Your task to perform on an android device: turn notification dots off Image 0: 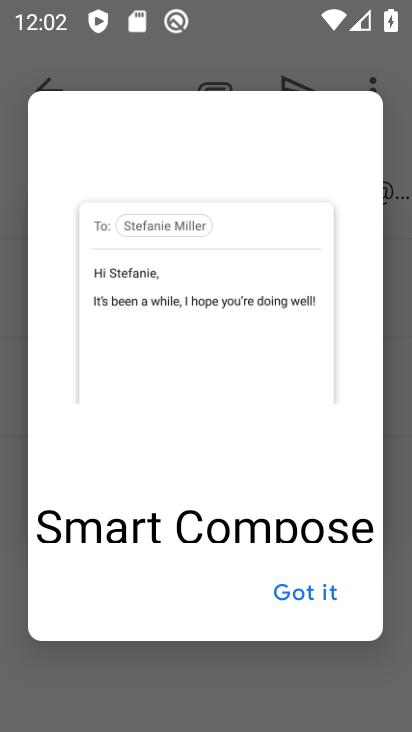
Step 0: press home button
Your task to perform on an android device: turn notification dots off Image 1: 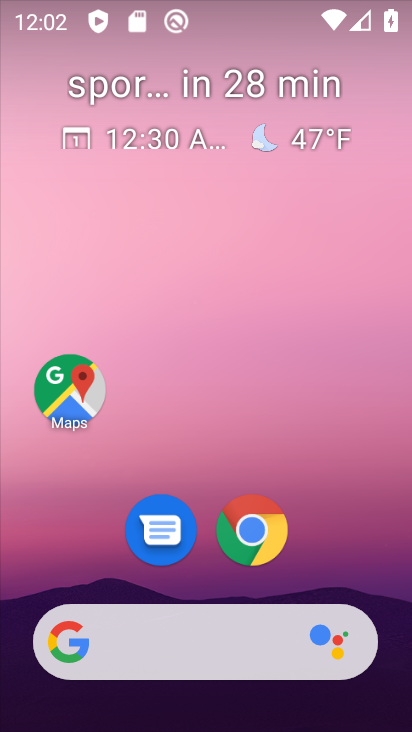
Step 1: drag from (349, 567) to (364, 59)
Your task to perform on an android device: turn notification dots off Image 2: 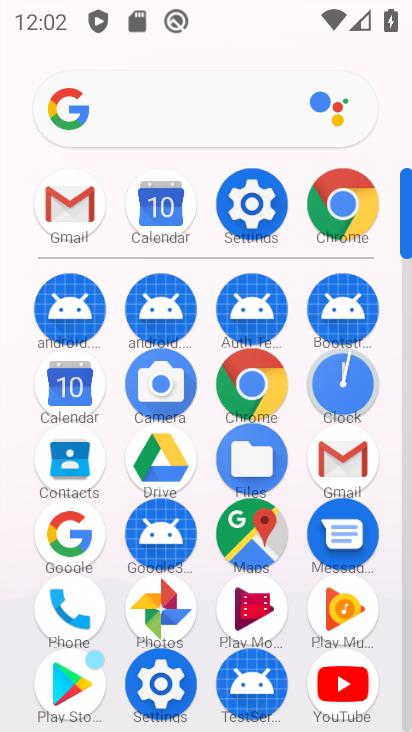
Step 2: click (246, 194)
Your task to perform on an android device: turn notification dots off Image 3: 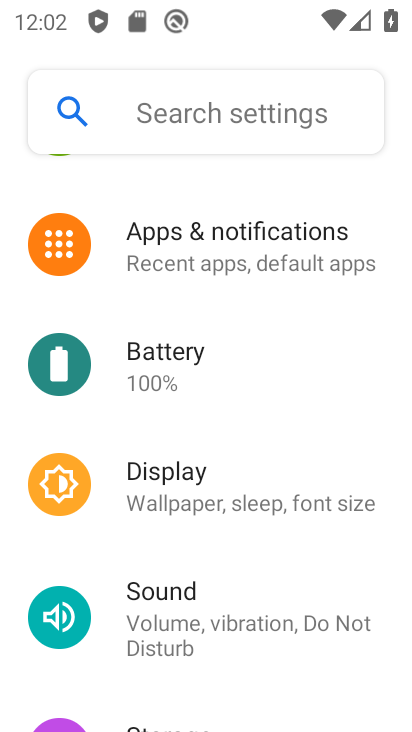
Step 3: click (275, 232)
Your task to perform on an android device: turn notification dots off Image 4: 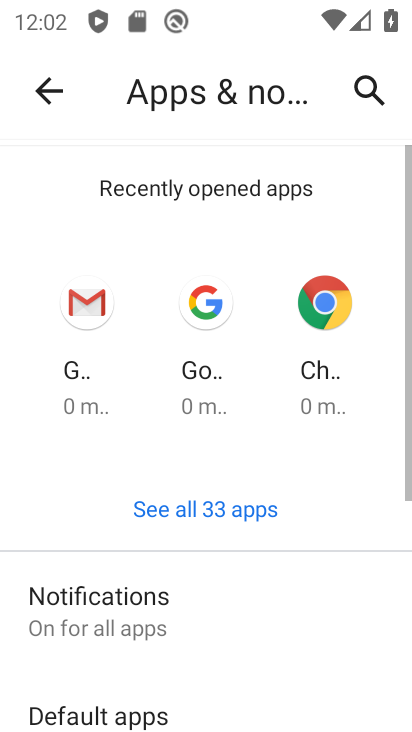
Step 4: click (161, 615)
Your task to perform on an android device: turn notification dots off Image 5: 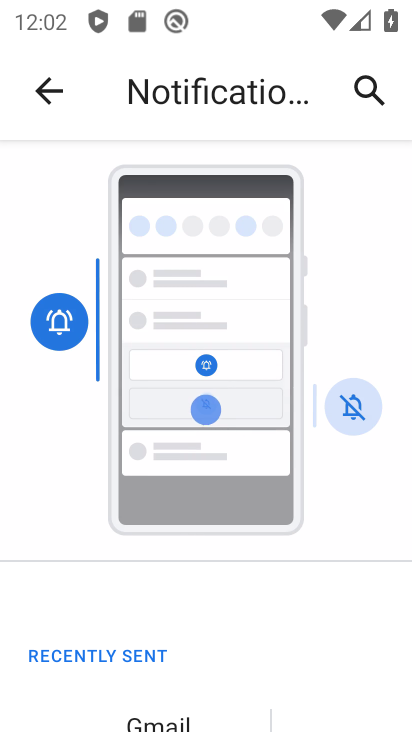
Step 5: drag from (136, 676) to (237, 333)
Your task to perform on an android device: turn notification dots off Image 6: 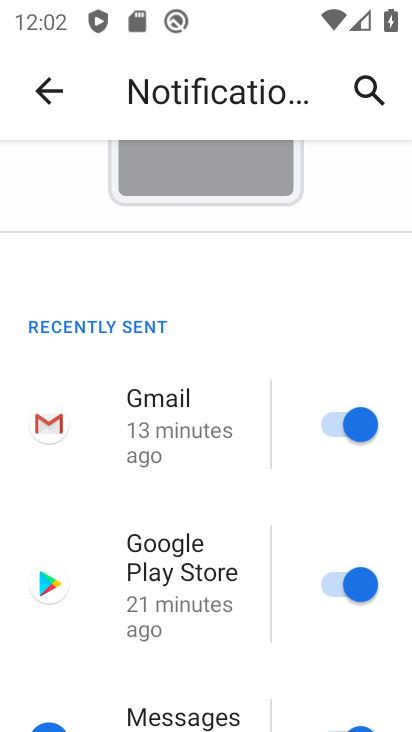
Step 6: drag from (157, 678) to (176, 357)
Your task to perform on an android device: turn notification dots off Image 7: 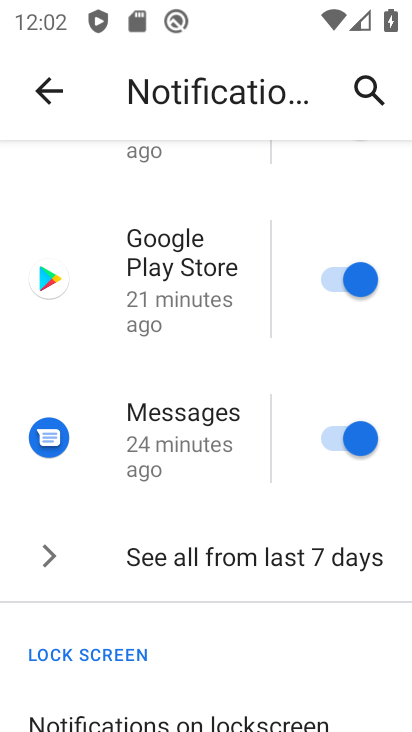
Step 7: drag from (163, 658) to (175, 267)
Your task to perform on an android device: turn notification dots off Image 8: 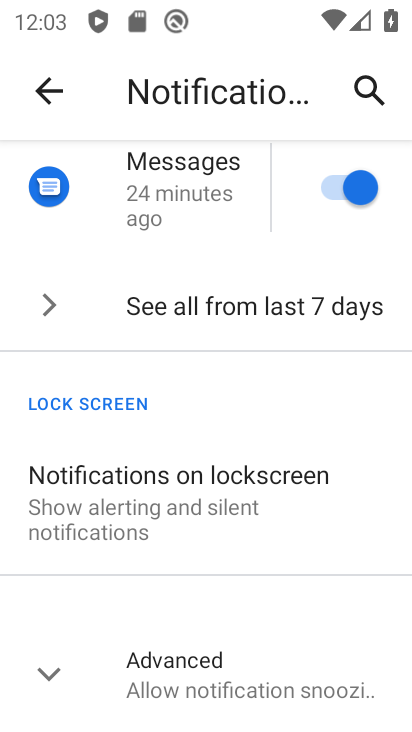
Step 8: click (75, 674)
Your task to perform on an android device: turn notification dots off Image 9: 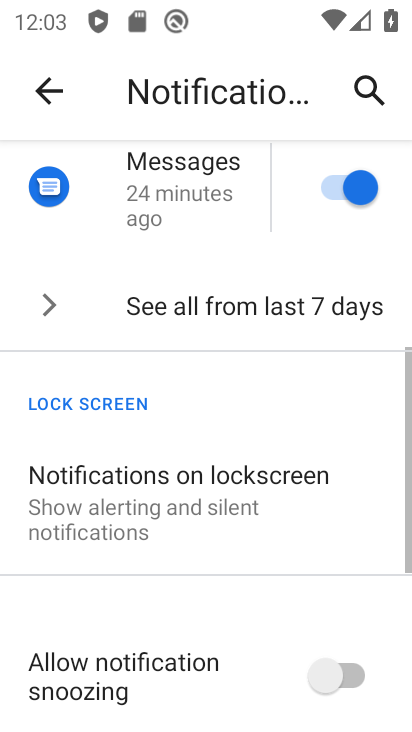
Step 9: drag from (254, 662) to (272, 423)
Your task to perform on an android device: turn notification dots off Image 10: 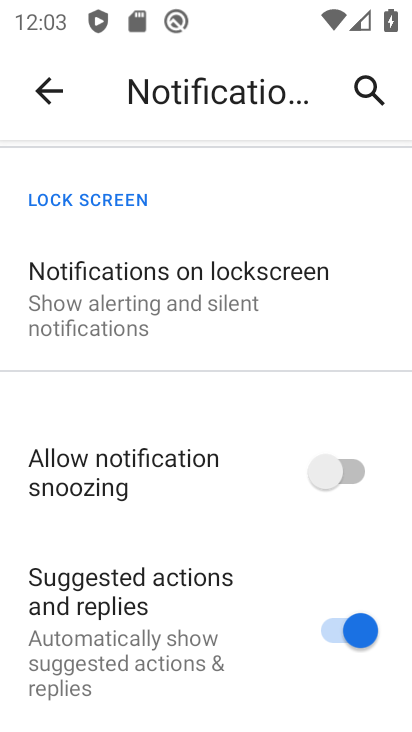
Step 10: drag from (233, 657) to (209, 426)
Your task to perform on an android device: turn notification dots off Image 11: 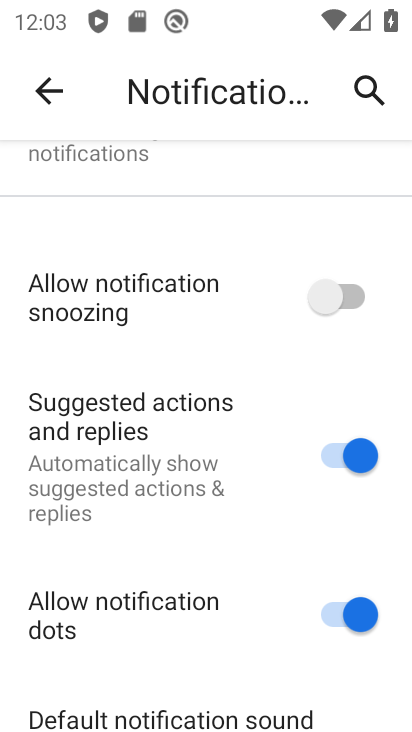
Step 11: click (346, 622)
Your task to perform on an android device: turn notification dots off Image 12: 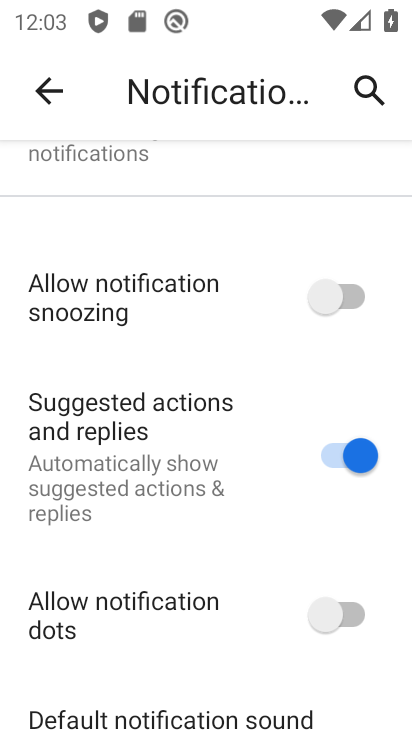
Step 12: task complete